Your task to perform on an android device: Open the phone app and click the voicemail tab. Image 0: 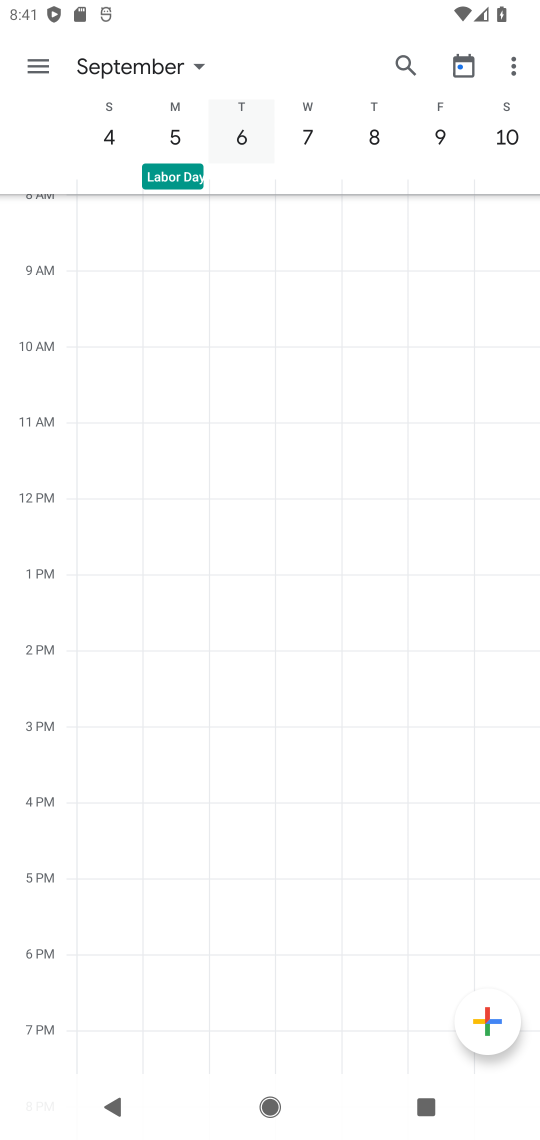
Step 0: press home button
Your task to perform on an android device: Open the phone app and click the voicemail tab. Image 1: 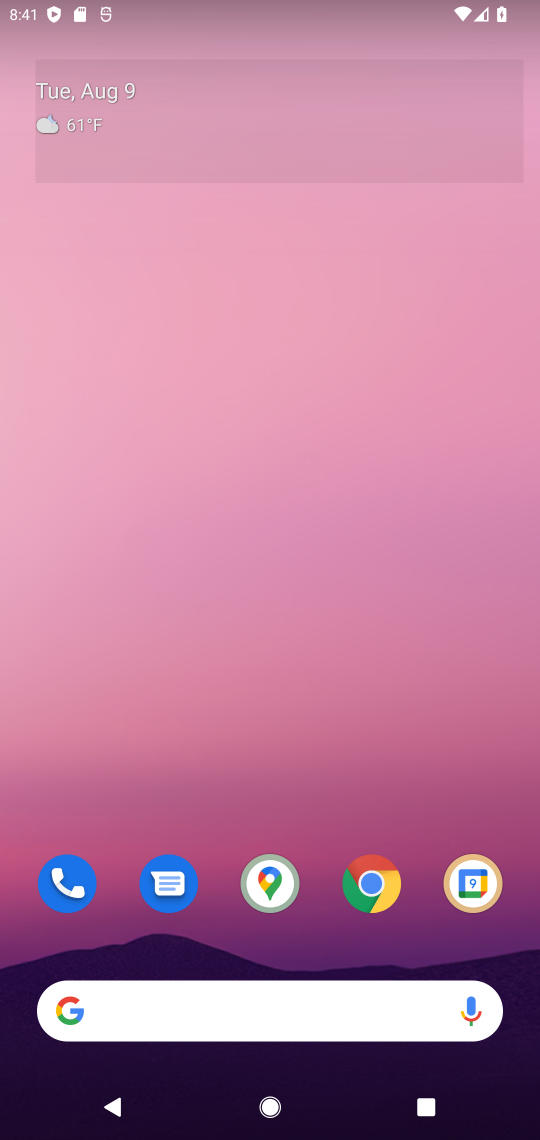
Step 1: drag from (399, 772) to (393, 66)
Your task to perform on an android device: Open the phone app and click the voicemail tab. Image 2: 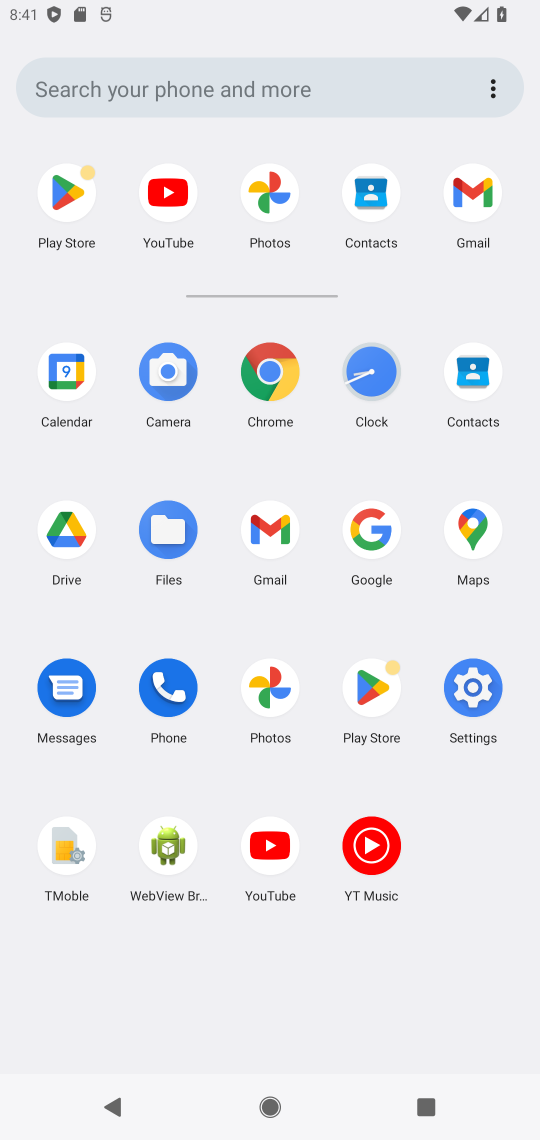
Step 2: click (158, 687)
Your task to perform on an android device: Open the phone app and click the voicemail tab. Image 3: 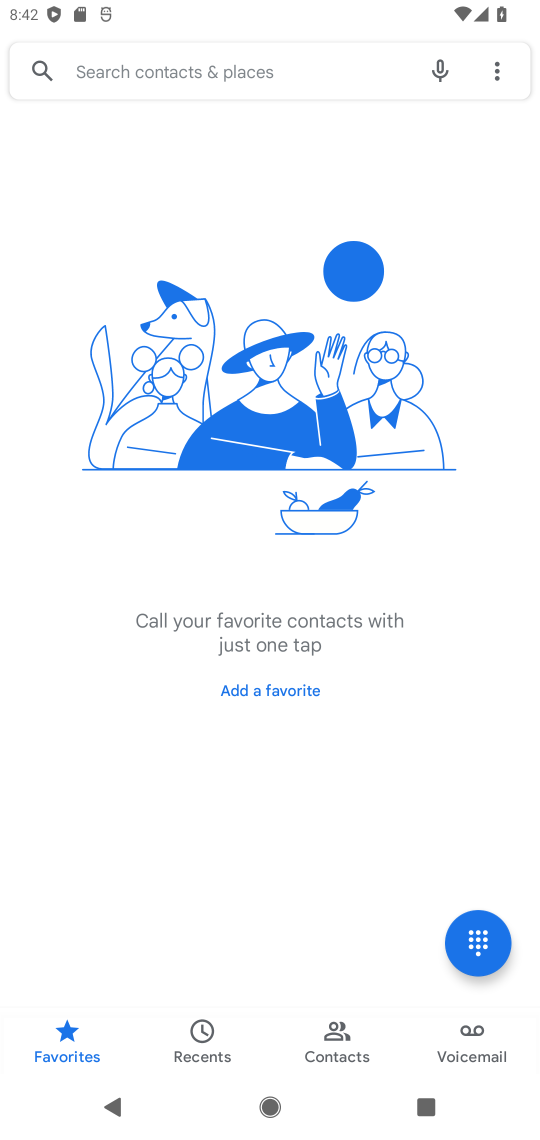
Step 3: click (480, 1048)
Your task to perform on an android device: Open the phone app and click the voicemail tab. Image 4: 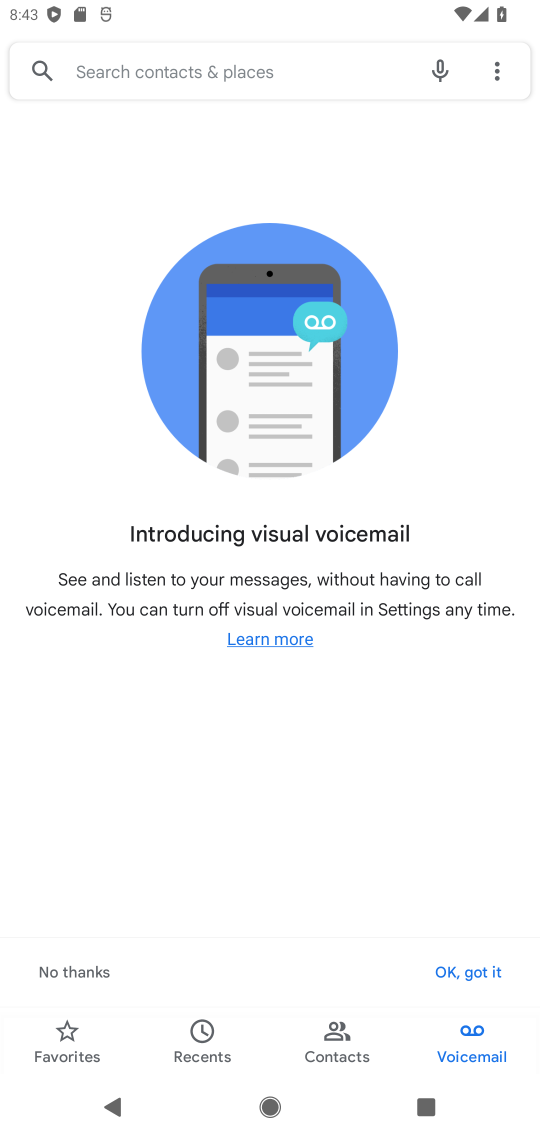
Step 4: task complete